Your task to perform on an android device: Go to Yahoo.com Image 0: 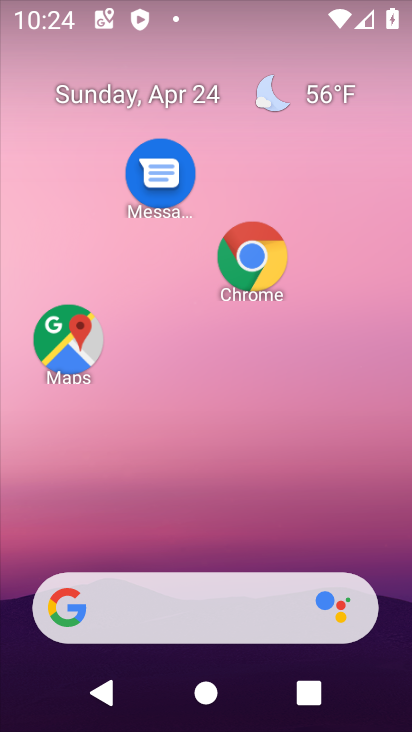
Step 0: click (257, 252)
Your task to perform on an android device: Go to Yahoo.com Image 1: 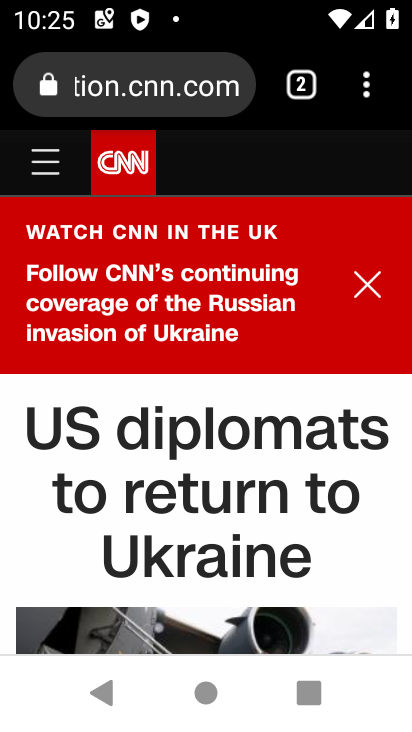
Step 1: drag from (362, 79) to (125, 283)
Your task to perform on an android device: Go to Yahoo.com Image 2: 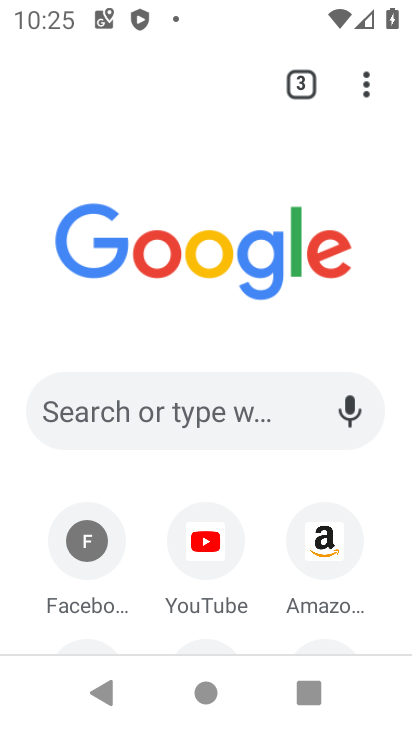
Step 2: click (132, 411)
Your task to perform on an android device: Go to Yahoo.com Image 3: 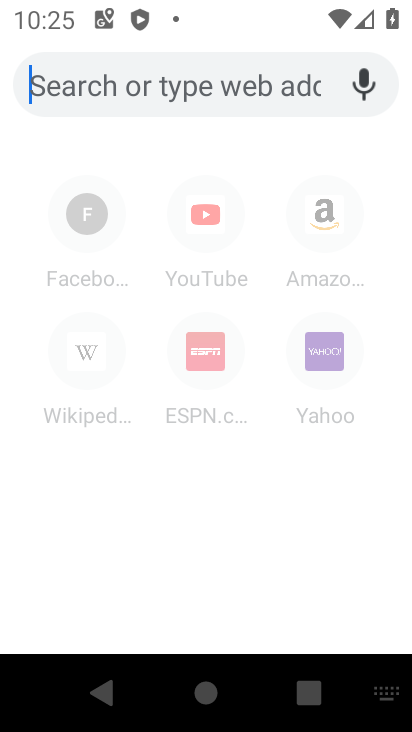
Step 3: type "Yahoo.com"
Your task to perform on an android device: Go to Yahoo.com Image 4: 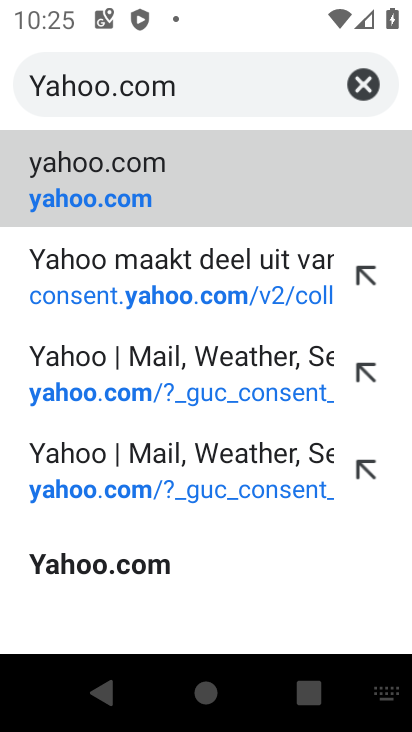
Step 4: click (196, 187)
Your task to perform on an android device: Go to Yahoo.com Image 5: 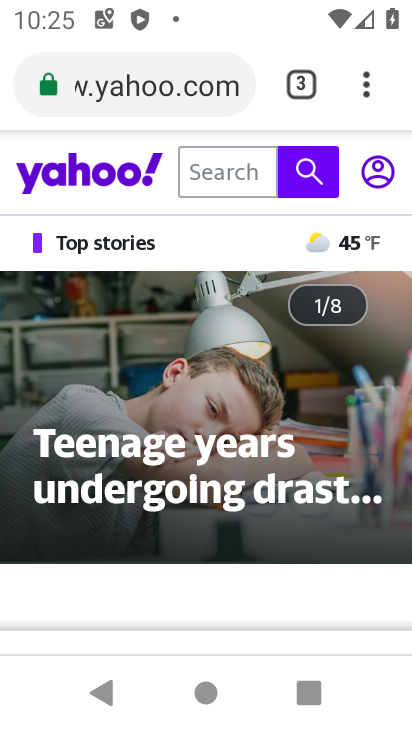
Step 5: task complete